Your task to perform on an android device: Play the last video I watched on Youtube Image 0: 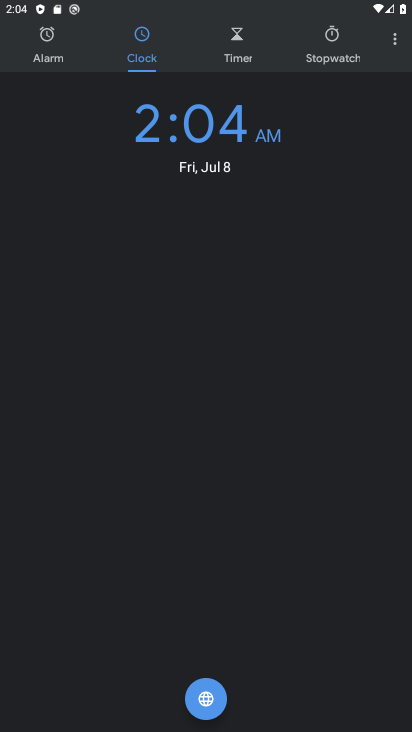
Step 0: press home button
Your task to perform on an android device: Play the last video I watched on Youtube Image 1: 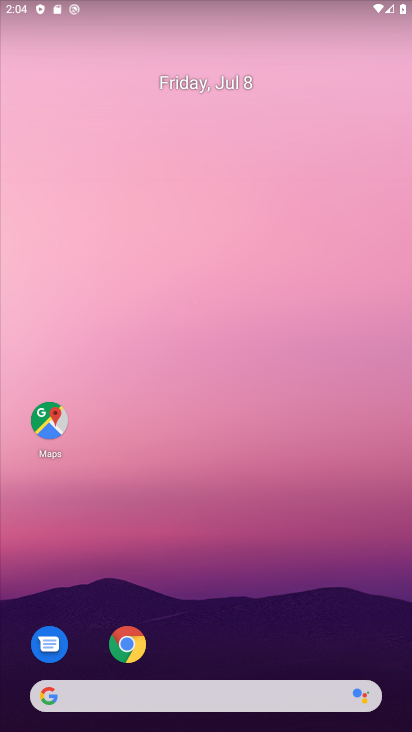
Step 1: drag from (219, 583) to (258, 232)
Your task to perform on an android device: Play the last video I watched on Youtube Image 2: 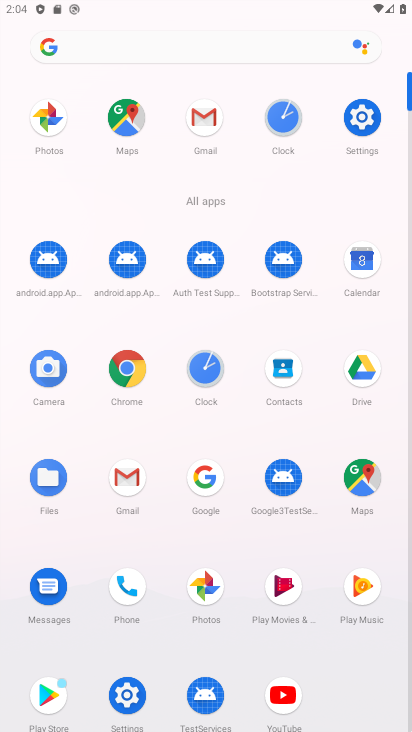
Step 2: click (283, 692)
Your task to perform on an android device: Play the last video I watched on Youtube Image 3: 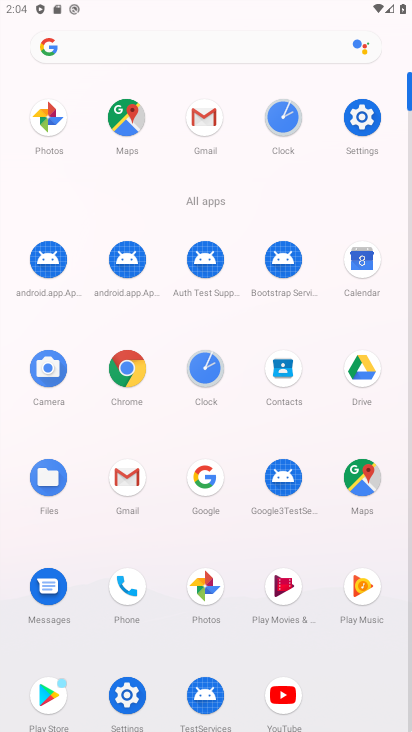
Step 3: click (283, 692)
Your task to perform on an android device: Play the last video I watched on Youtube Image 4: 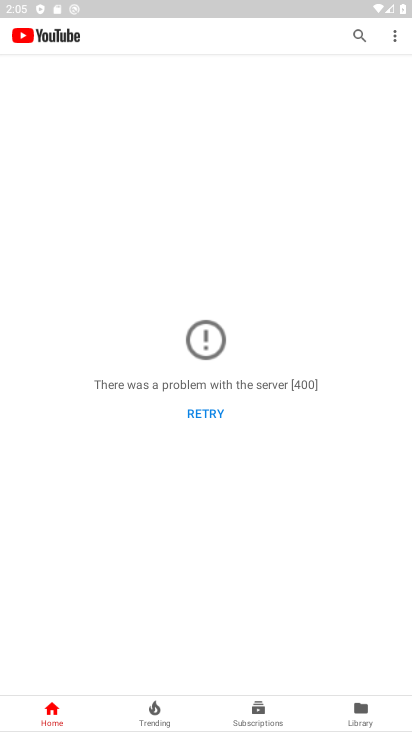
Step 4: click (355, 31)
Your task to perform on an android device: Play the last video I watched on Youtube Image 5: 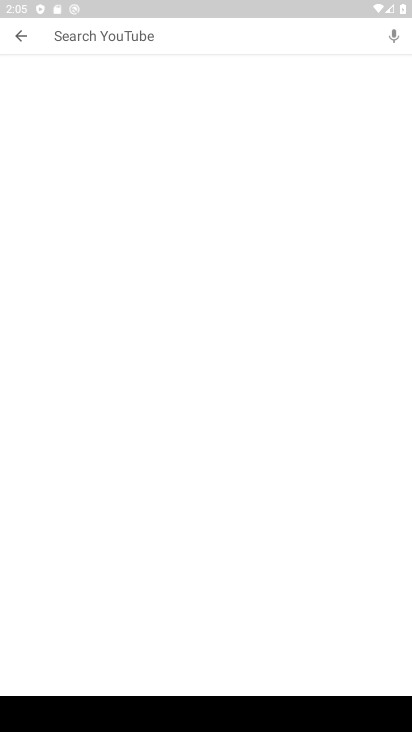
Step 5: click (161, 39)
Your task to perform on an android device: Play the last video I watched on Youtube Image 6: 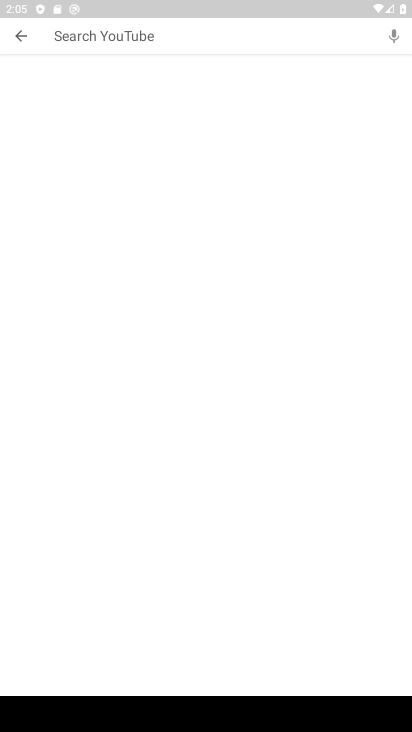
Step 6: type "incridble india "
Your task to perform on an android device: Play the last video I watched on Youtube Image 7: 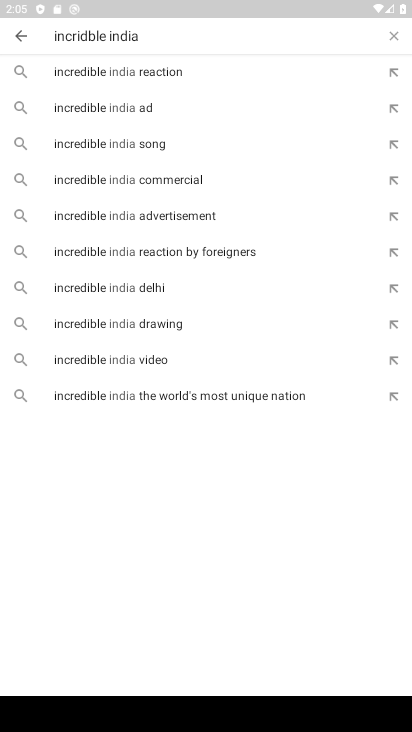
Step 7: click (131, 59)
Your task to perform on an android device: Play the last video I watched on Youtube Image 8: 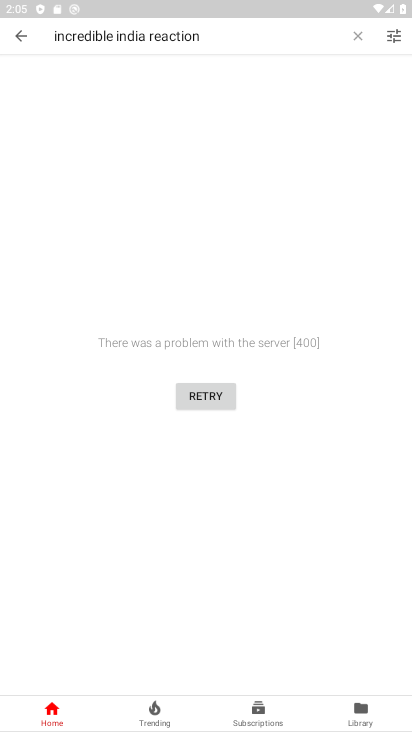
Step 8: task complete